Your task to perform on an android device: Search for "alienware aurora" on newegg.com, select the first entry, add it to the cart, then select checkout. Image 0: 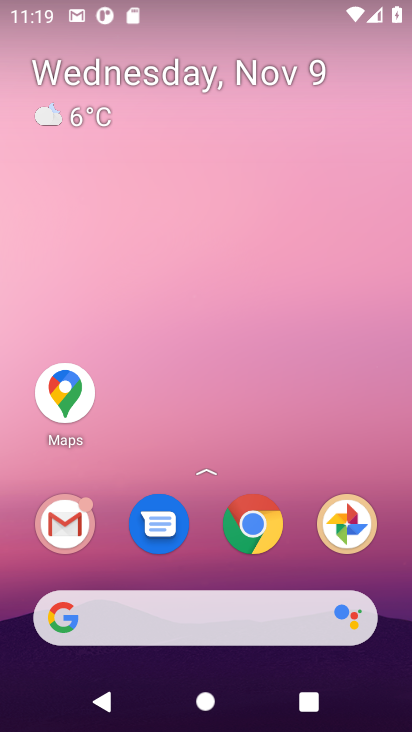
Step 0: click (248, 528)
Your task to perform on an android device: Search for "alienware aurora" on newegg.com, select the first entry, add it to the cart, then select checkout. Image 1: 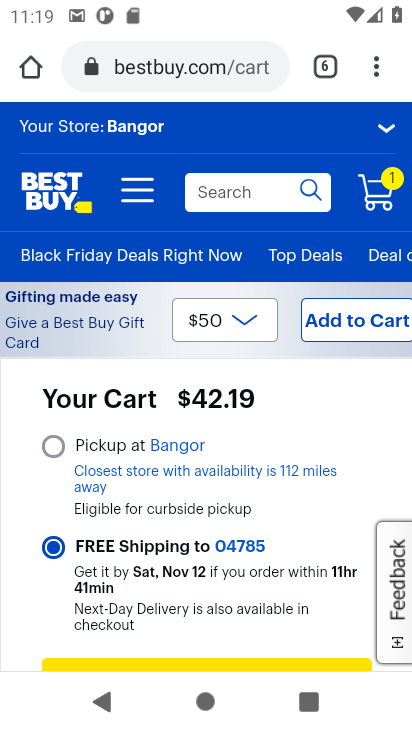
Step 1: click (321, 73)
Your task to perform on an android device: Search for "alienware aurora" on newegg.com, select the first entry, add it to the cart, then select checkout. Image 2: 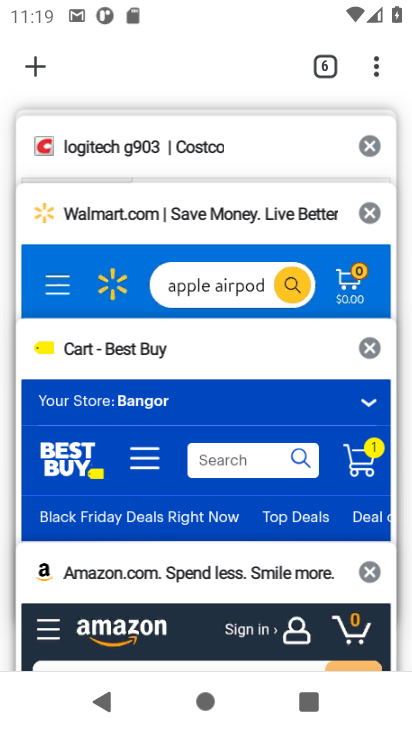
Step 2: drag from (165, 126) to (96, 255)
Your task to perform on an android device: Search for "alienware aurora" on newegg.com, select the first entry, add it to the cart, then select checkout. Image 3: 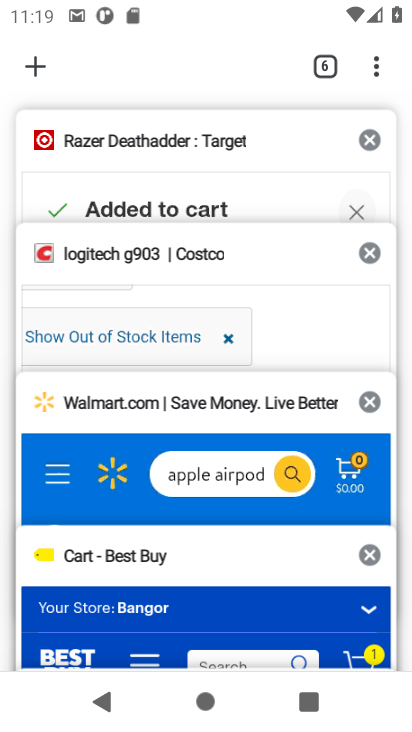
Step 3: click (28, 71)
Your task to perform on an android device: Search for "alienware aurora" on newegg.com, select the first entry, add it to the cart, then select checkout. Image 4: 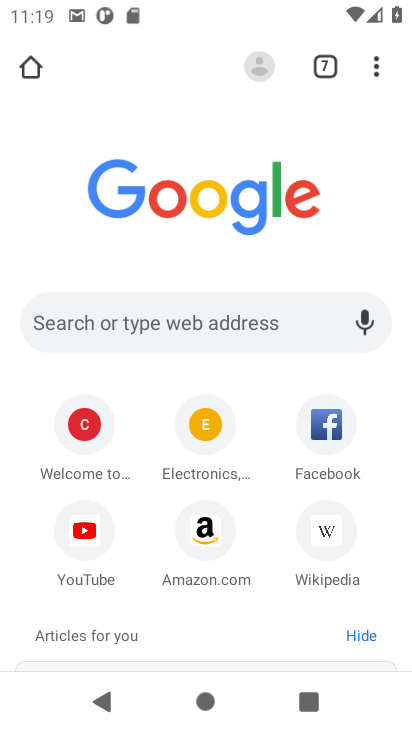
Step 4: click (221, 322)
Your task to perform on an android device: Search for "alienware aurora" on newegg.com, select the first entry, add it to the cart, then select checkout. Image 5: 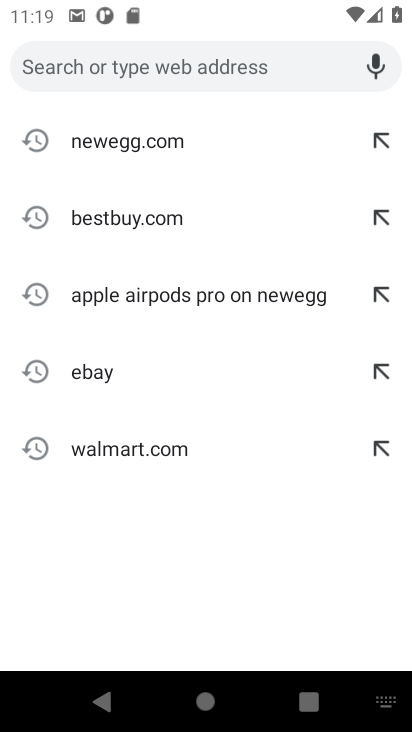
Step 5: type "alienware aurora on newegg"
Your task to perform on an android device: Search for "alienware aurora" on newegg.com, select the first entry, add it to the cart, then select checkout. Image 6: 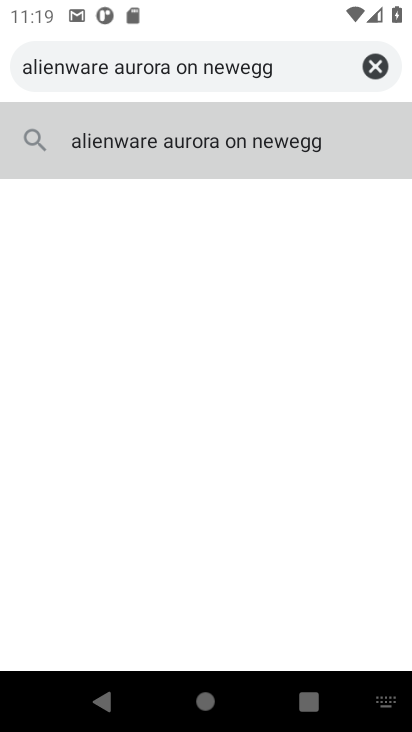
Step 6: click (211, 140)
Your task to perform on an android device: Search for "alienware aurora" on newegg.com, select the first entry, add it to the cart, then select checkout. Image 7: 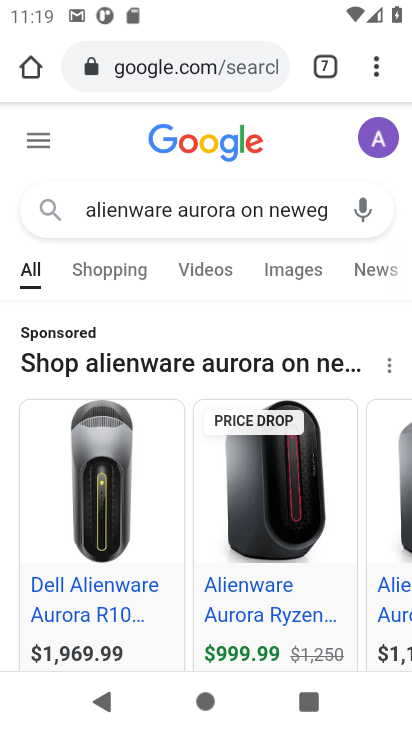
Step 7: drag from (65, 598) to (111, 354)
Your task to perform on an android device: Search for "alienware aurora" on newegg.com, select the first entry, add it to the cart, then select checkout. Image 8: 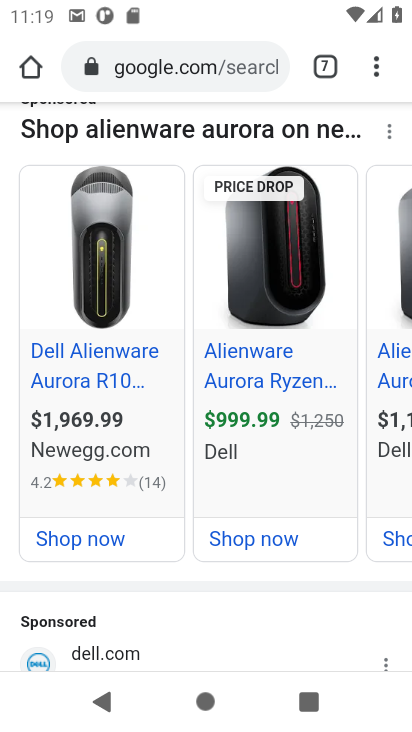
Step 8: click (96, 349)
Your task to perform on an android device: Search for "alienware aurora" on newegg.com, select the first entry, add it to the cart, then select checkout. Image 9: 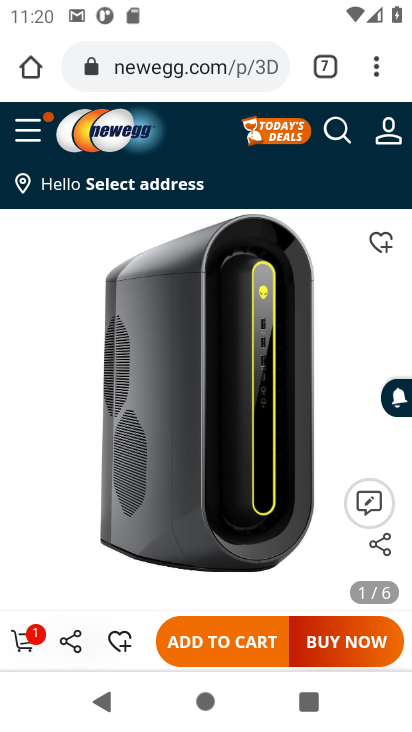
Step 9: click (203, 640)
Your task to perform on an android device: Search for "alienware aurora" on newegg.com, select the first entry, add it to the cart, then select checkout. Image 10: 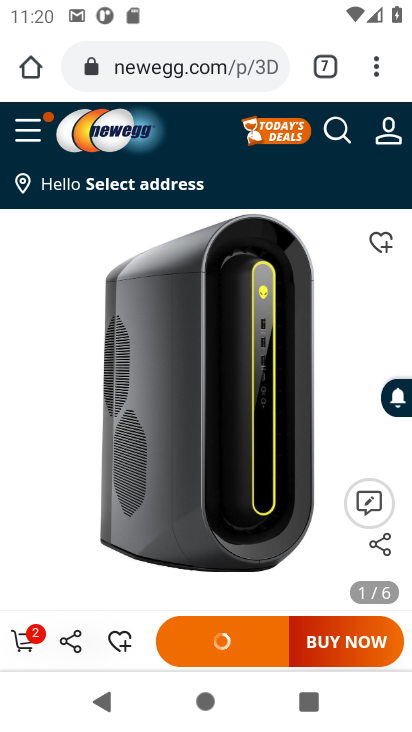
Step 10: click (30, 643)
Your task to perform on an android device: Search for "alienware aurora" on newegg.com, select the first entry, add it to the cart, then select checkout. Image 11: 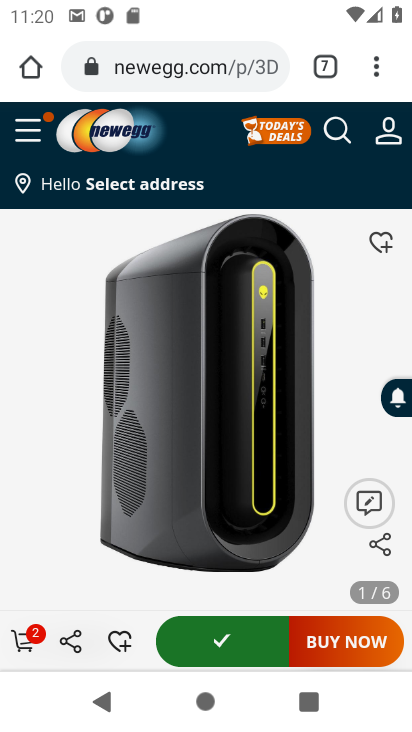
Step 11: click (30, 643)
Your task to perform on an android device: Search for "alienware aurora" on newegg.com, select the first entry, add it to the cart, then select checkout. Image 12: 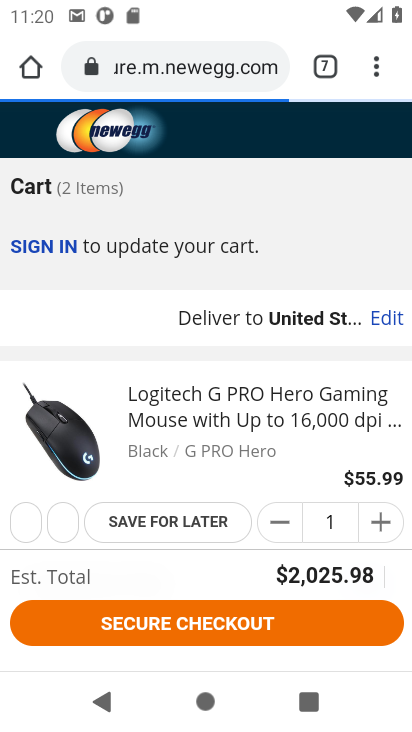
Step 12: click (30, 643)
Your task to perform on an android device: Search for "alienware aurora" on newegg.com, select the first entry, add it to the cart, then select checkout. Image 13: 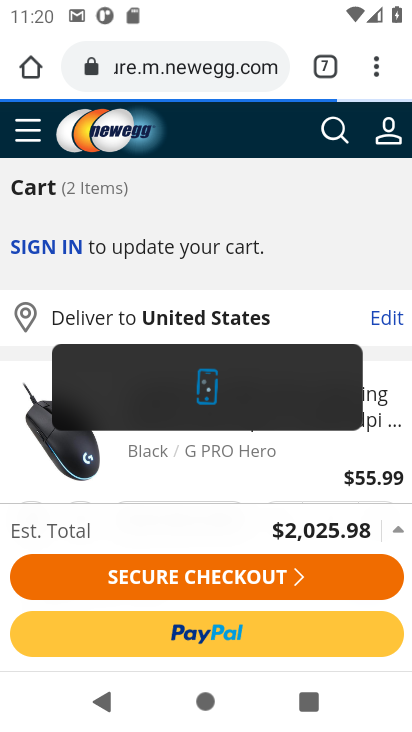
Step 13: click (80, 624)
Your task to perform on an android device: Search for "alienware aurora" on newegg.com, select the first entry, add it to the cart, then select checkout. Image 14: 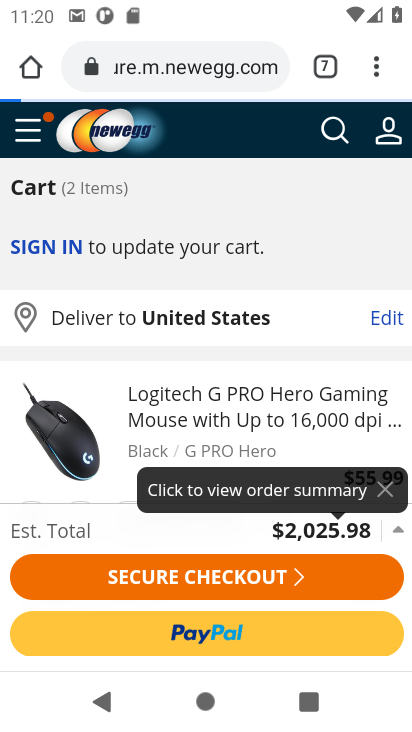
Step 14: task complete